Your task to perform on an android device: Set the phone to "Do not disturb". Image 0: 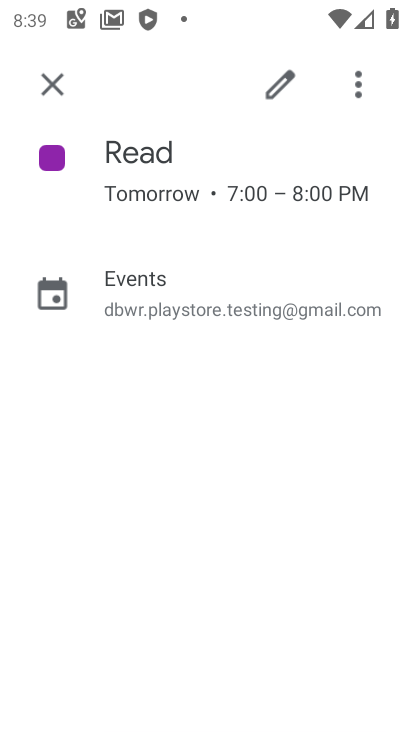
Step 0: press home button
Your task to perform on an android device: Set the phone to "Do not disturb". Image 1: 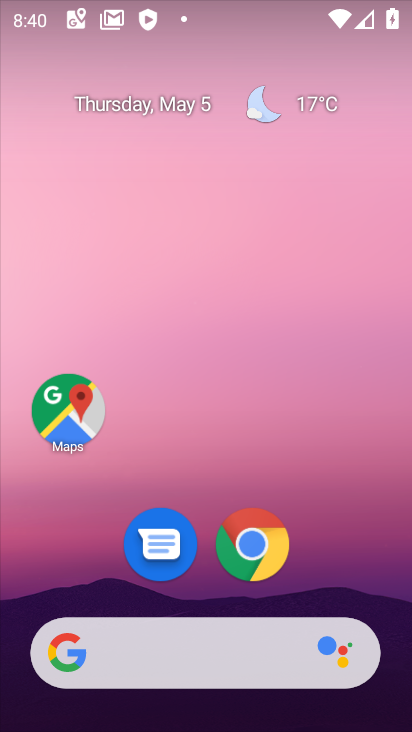
Step 1: drag from (230, 2) to (255, 525)
Your task to perform on an android device: Set the phone to "Do not disturb". Image 2: 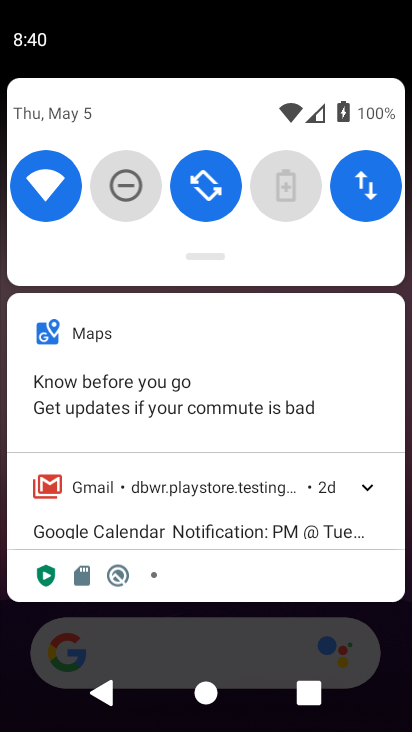
Step 2: click (118, 176)
Your task to perform on an android device: Set the phone to "Do not disturb". Image 3: 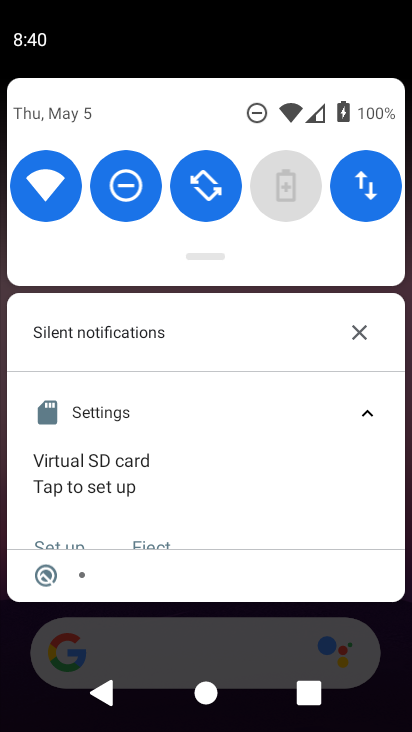
Step 3: task complete